Your task to perform on an android device: turn on translation in the chrome app Image 0: 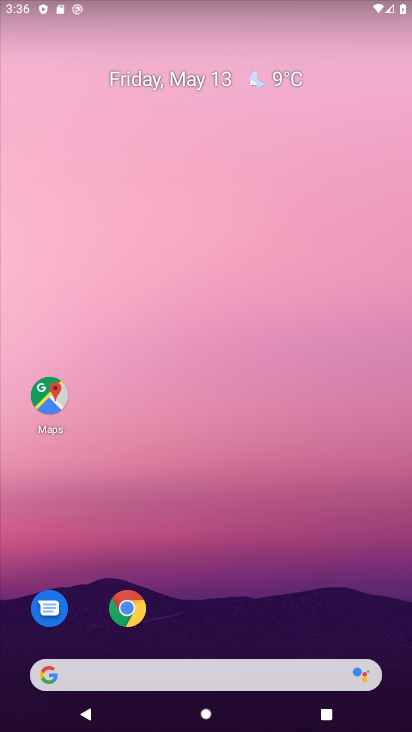
Step 0: click (120, 611)
Your task to perform on an android device: turn on translation in the chrome app Image 1: 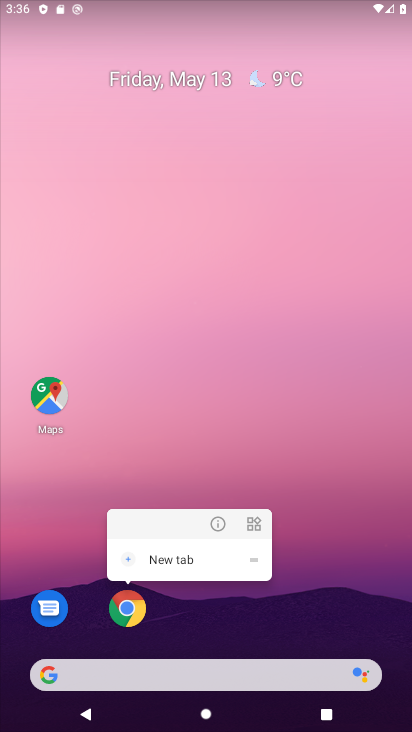
Step 1: click (123, 609)
Your task to perform on an android device: turn on translation in the chrome app Image 2: 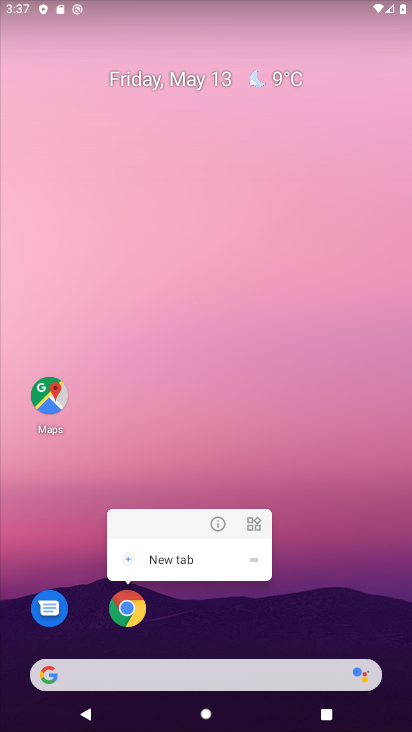
Step 2: click (121, 597)
Your task to perform on an android device: turn on translation in the chrome app Image 3: 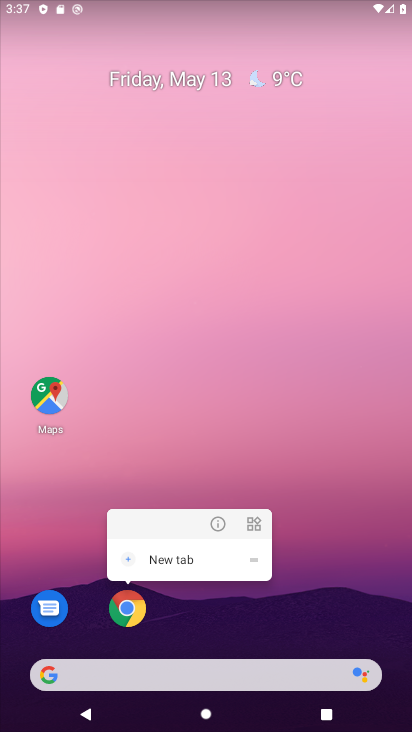
Step 3: click (121, 603)
Your task to perform on an android device: turn on translation in the chrome app Image 4: 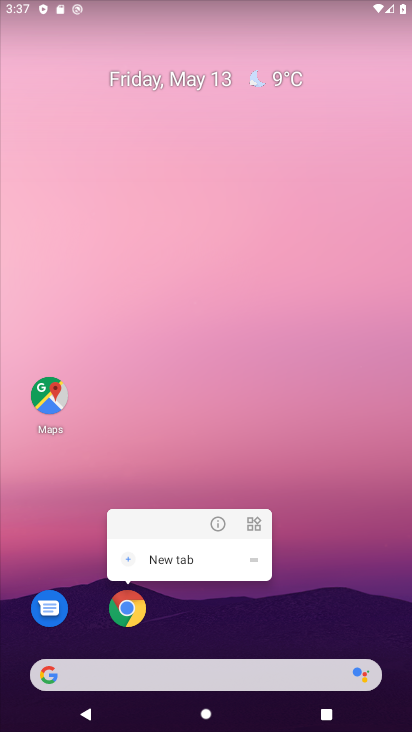
Step 4: click (129, 615)
Your task to perform on an android device: turn on translation in the chrome app Image 5: 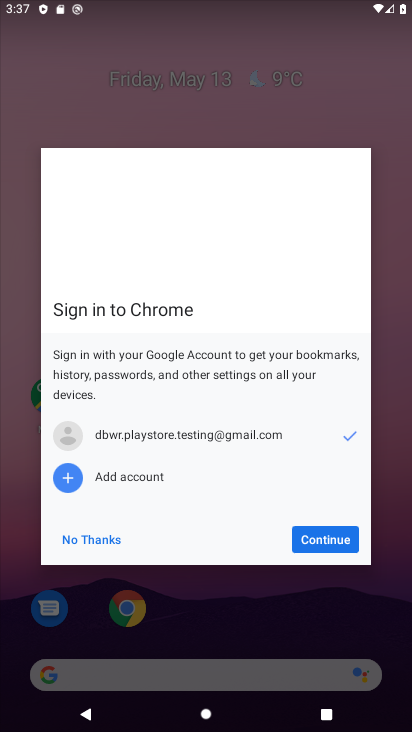
Step 5: click (301, 535)
Your task to perform on an android device: turn on translation in the chrome app Image 6: 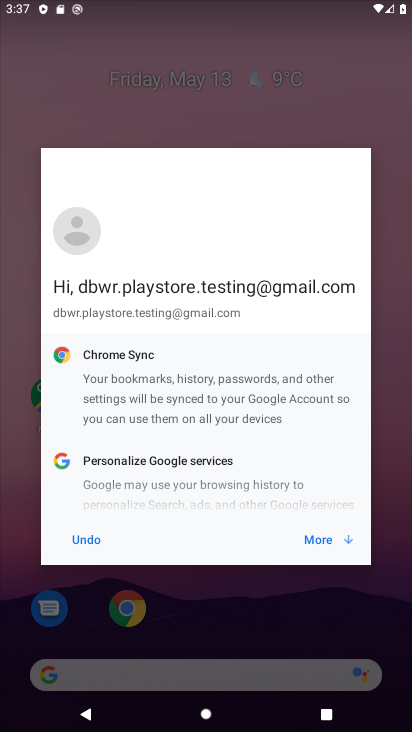
Step 6: click (307, 545)
Your task to perform on an android device: turn on translation in the chrome app Image 7: 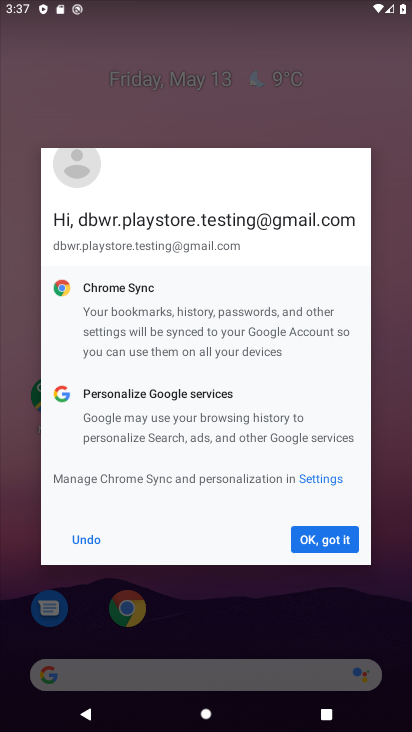
Step 7: click (307, 545)
Your task to perform on an android device: turn on translation in the chrome app Image 8: 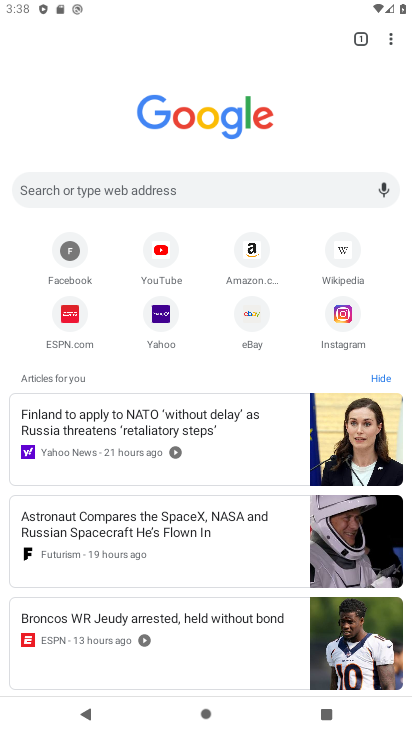
Step 8: click (397, 34)
Your task to perform on an android device: turn on translation in the chrome app Image 9: 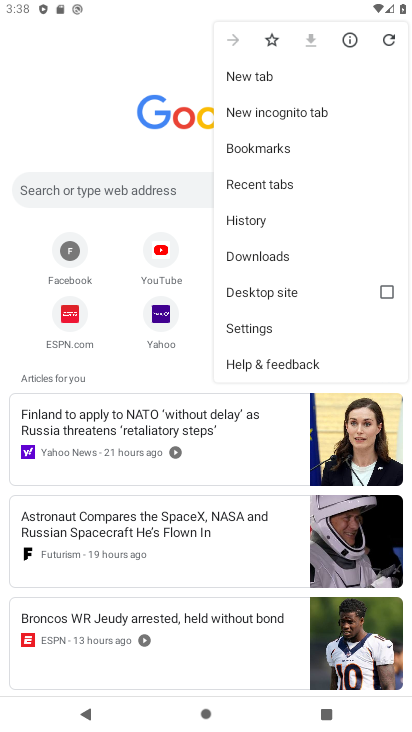
Step 9: click (241, 329)
Your task to perform on an android device: turn on translation in the chrome app Image 10: 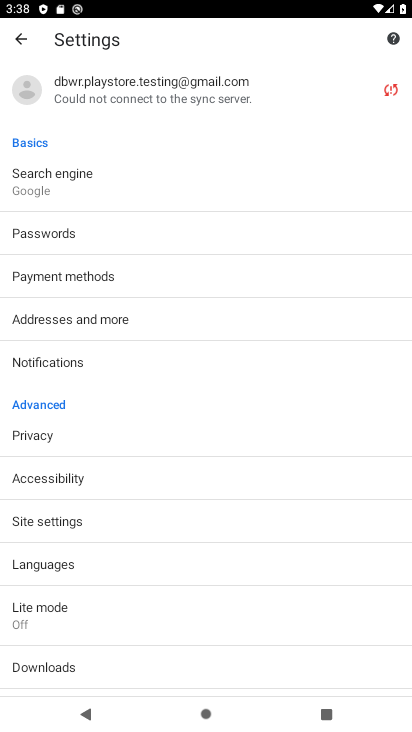
Step 10: click (51, 559)
Your task to perform on an android device: turn on translation in the chrome app Image 11: 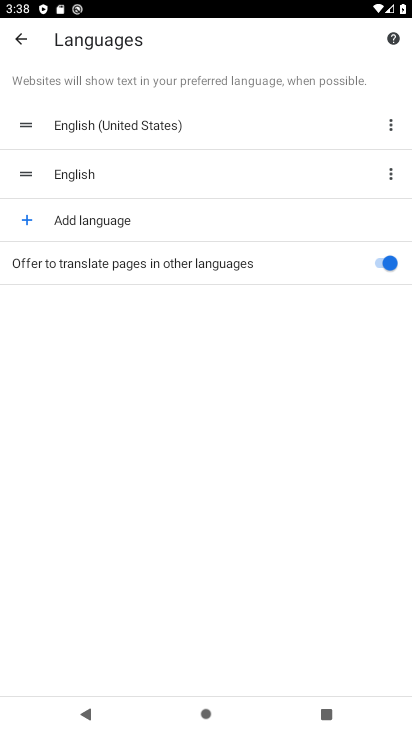
Step 11: task complete